Your task to perform on an android device: turn off improve location accuracy Image 0: 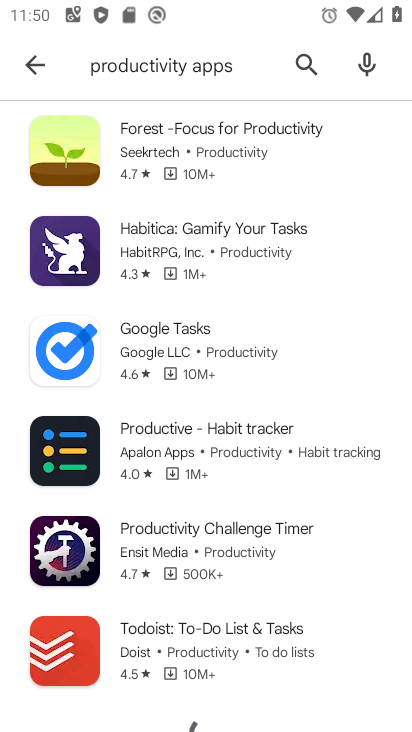
Step 0: press home button
Your task to perform on an android device: turn off improve location accuracy Image 1: 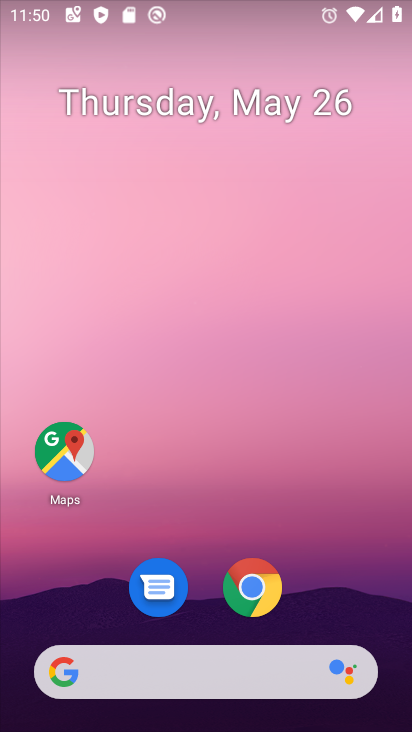
Step 1: drag from (194, 714) to (317, 0)
Your task to perform on an android device: turn off improve location accuracy Image 2: 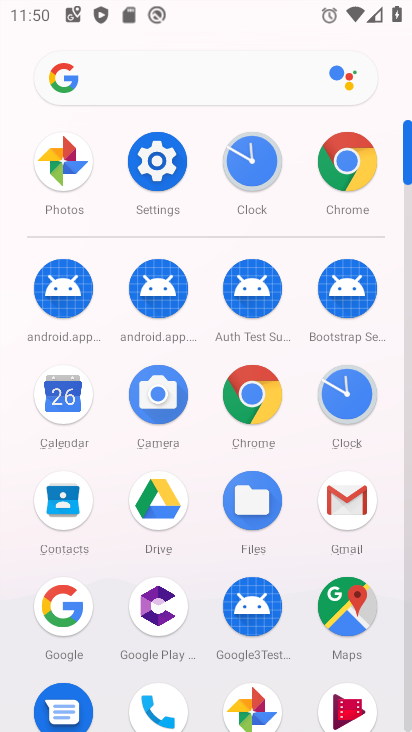
Step 2: click (159, 173)
Your task to perform on an android device: turn off improve location accuracy Image 3: 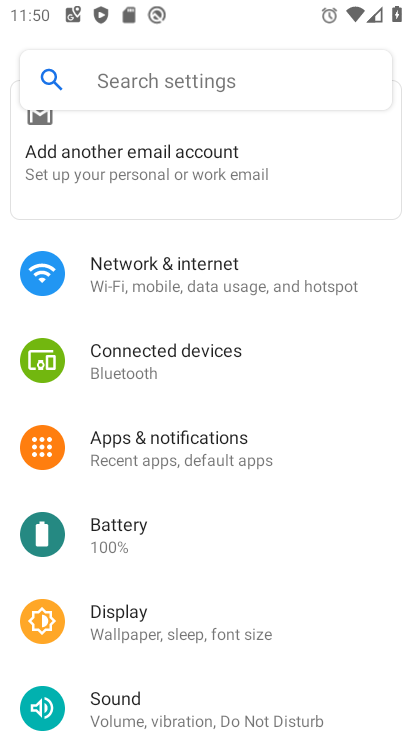
Step 3: click (173, 82)
Your task to perform on an android device: turn off improve location accuracy Image 4: 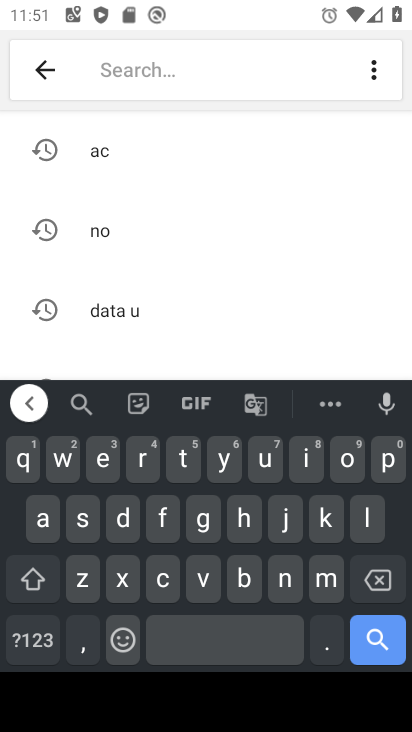
Step 4: click (367, 539)
Your task to perform on an android device: turn off improve location accuracy Image 5: 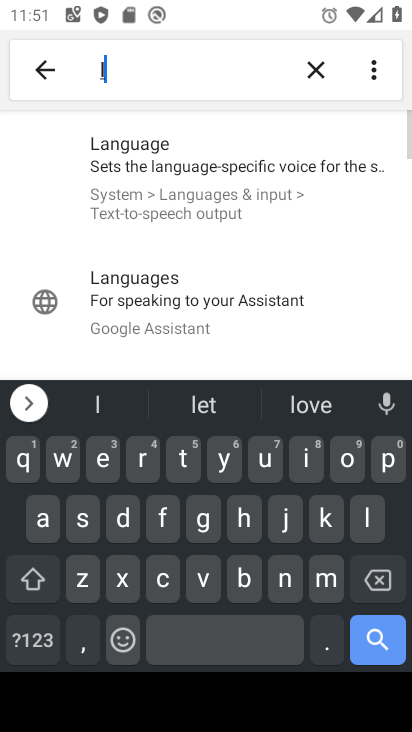
Step 5: click (342, 462)
Your task to perform on an android device: turn off improve location accuracy Image 6: 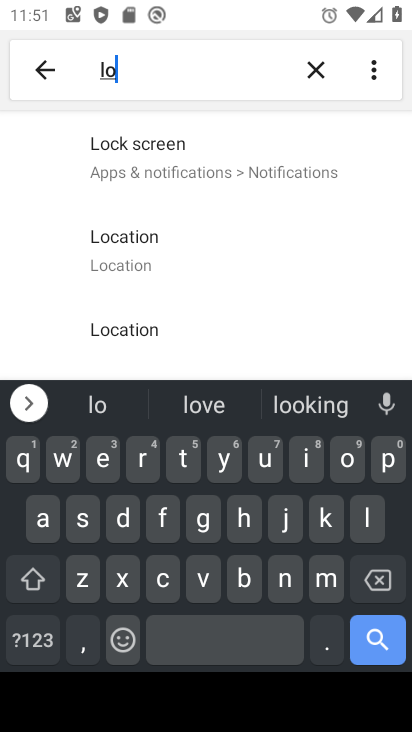
Step 6: click (137, 252)
Your task to perform on an android device: turn off improve location accuracy Image 7: 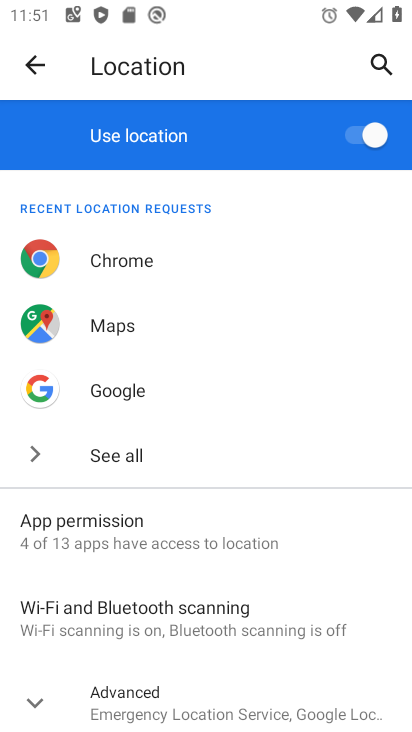
Step 7: click (71, 686)
Your task to perform on an android device: turn off improve location accuracy Image 8: 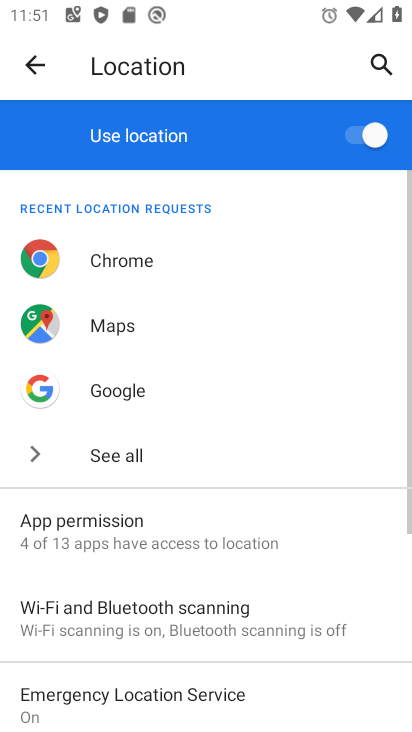
Step 8: drag from (144, 630) to (223, 253)
Your task to perform on an android device: turn off improve location accuracy Image 9: 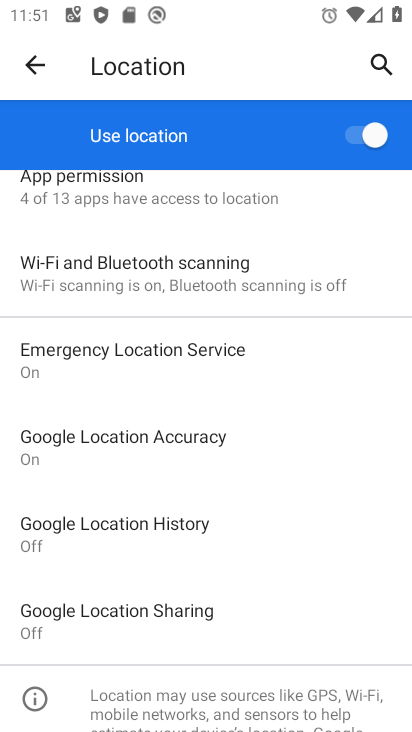
Step 9: click (145, 435)
Your task to perform on an android device: turn off improve location accuracy Image 10: 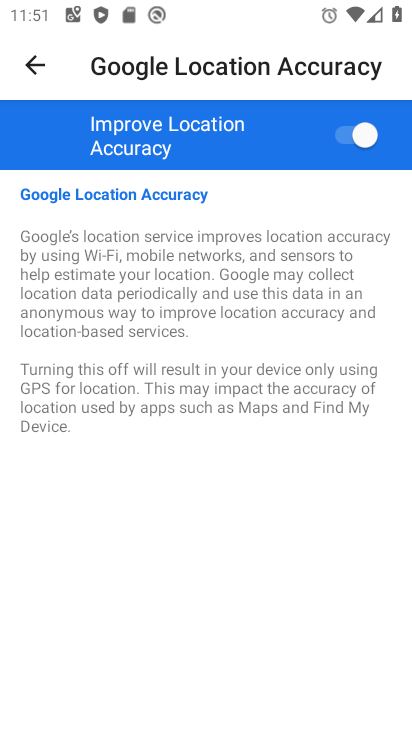
Step 10: click (337, 147)
Your task to perform on an android device: turn off improve location accuracy Image 11: 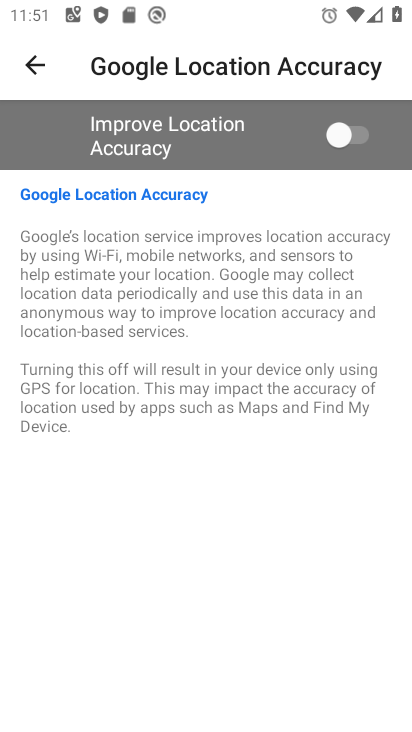
Step 11: task complete